Your task to perform on an android device: What's the weather today? Image 0: 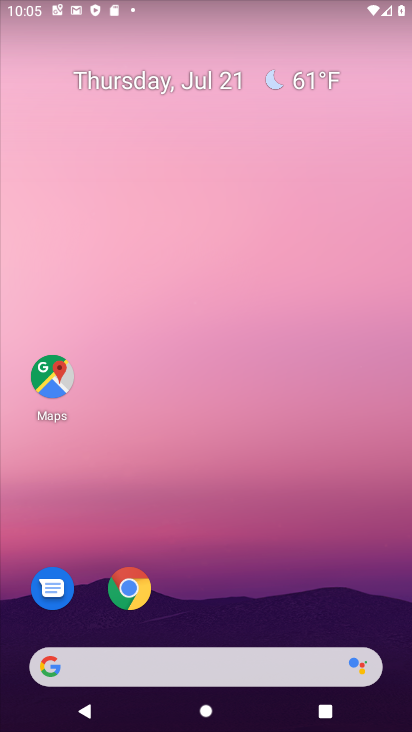
Step 0: click (163, 659)
Your task to perform on an android device: What's the weather today? Image 1: 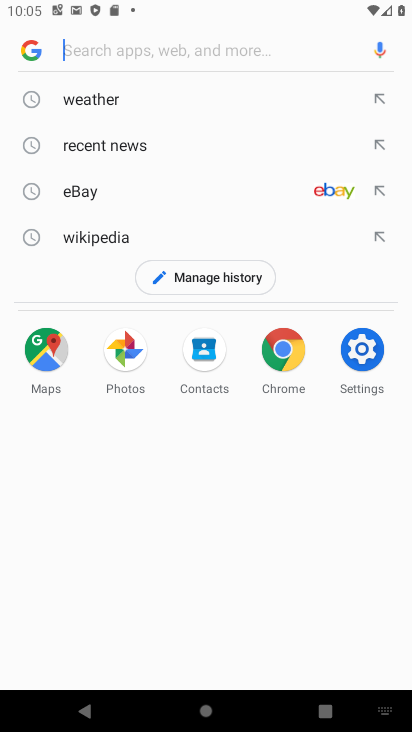
Step 1: click (99, 97)
Your task to perform on an android device: What's the weather today? Image 2: 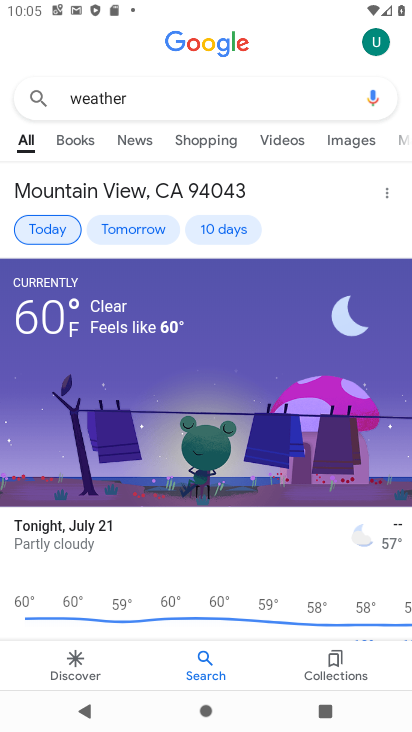
Step 2: click (73, 220)
Your task to perform on an android device: What's the weather today? Image 3: 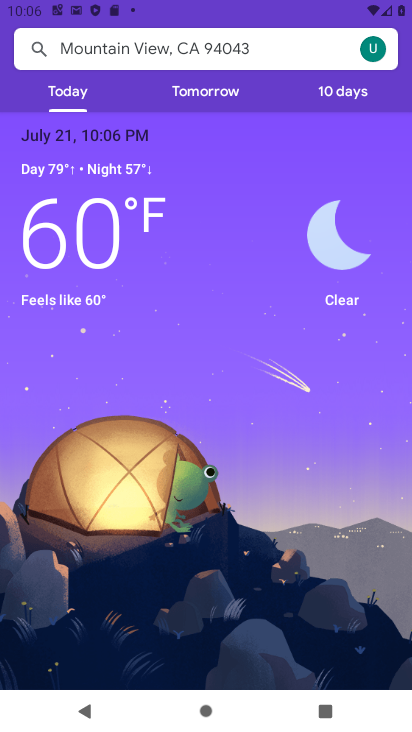
Step 3: task complete